Your task to perform on an android device: empty trash in the gmail app Image 0: 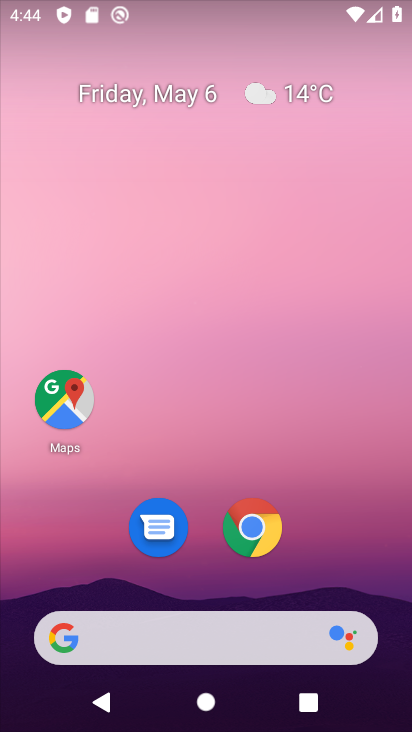
Step 0: drag from (355, 559) to (326, 182)
Your task to perform on an android device: empty trash in the gmail app Image 1: 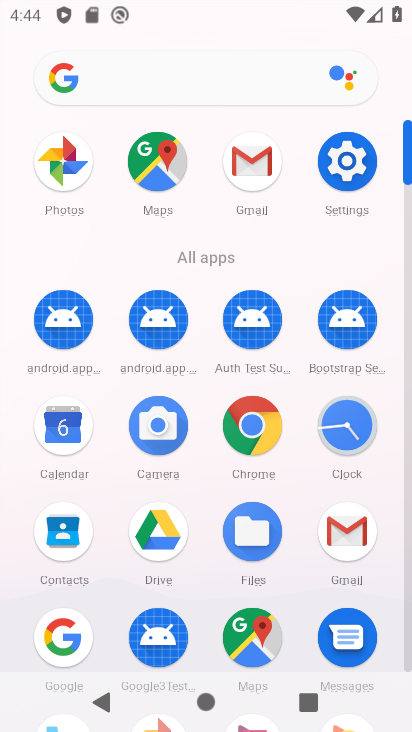
Step 1: click (240, 175)
Your task to perform on an android device: empty trash in the gmail app Image 2: 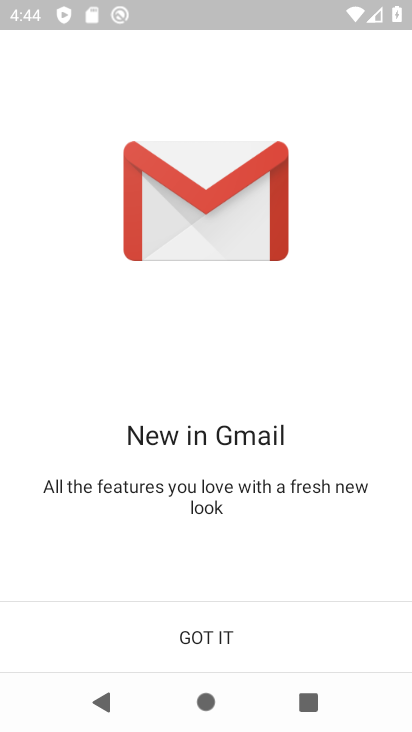
Step 2: click (198, 626)
Your task to perform on an android device: empty trash in the gmail app Image 3: 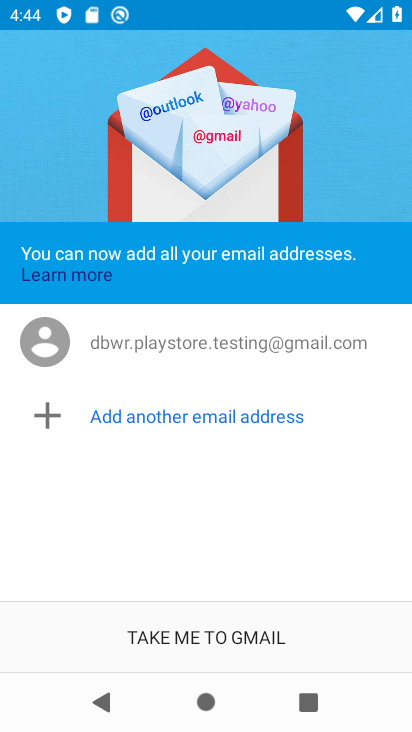
Step 3: click (198, 626)
Your task to perform on an android device: empty trash in the gmail app Image 4: 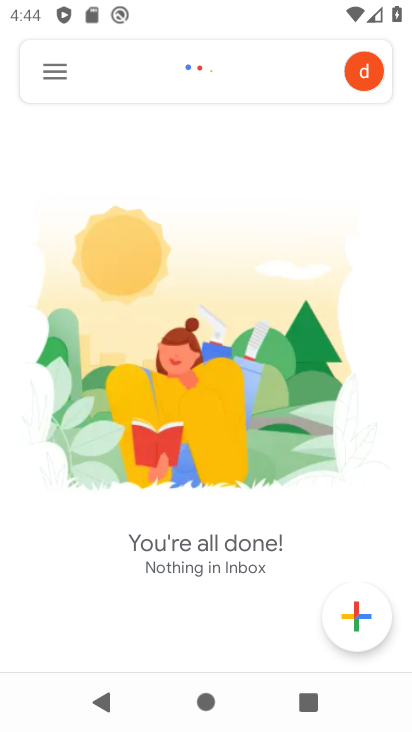
Step 4: click (50, 82)
Your task to perform on an android device: empty trash in the gmail app Image 5: 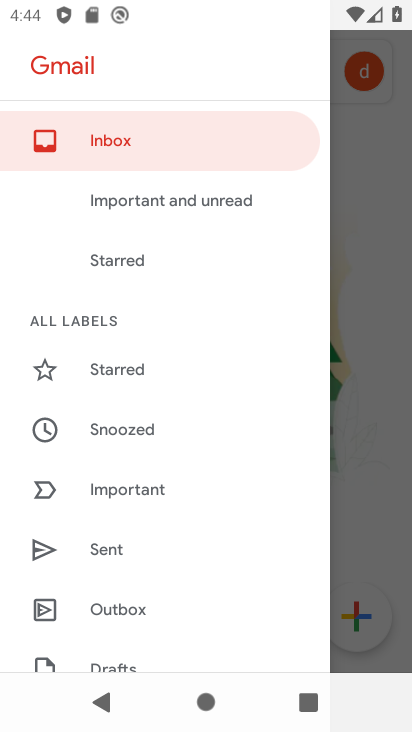
Step 5: drag from (144, 601) to (168, 231)
Your task to perform on an android device: empty trash in the gmail app Image 6: 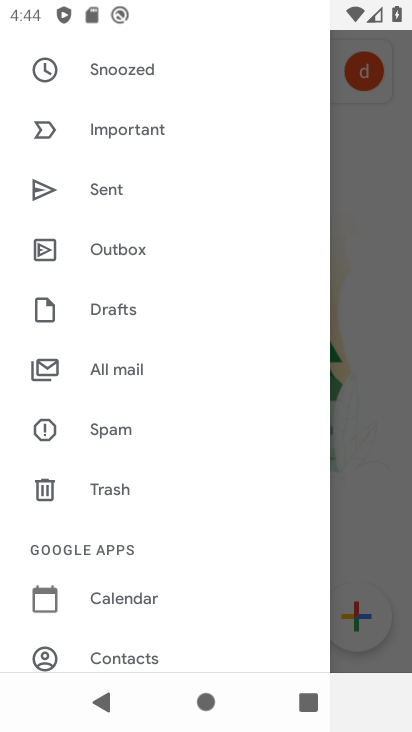
Step 6: click (123, 491)
Your task to perform on an android device: empty trash in the gmail app Image 7: 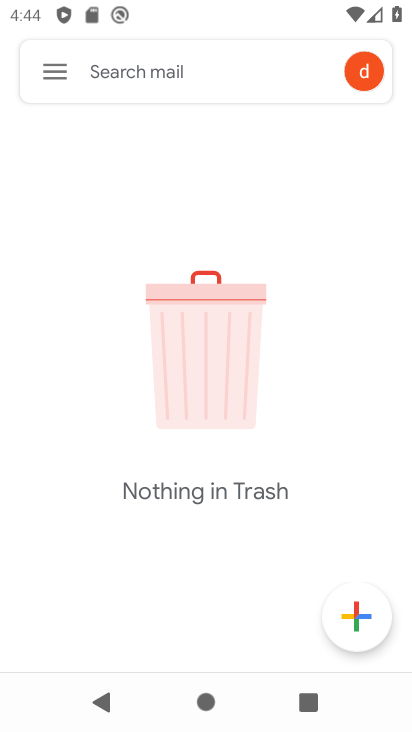
Step 7: task complete